Your task to perform on an android device: Go to Wikipedia Image 0: 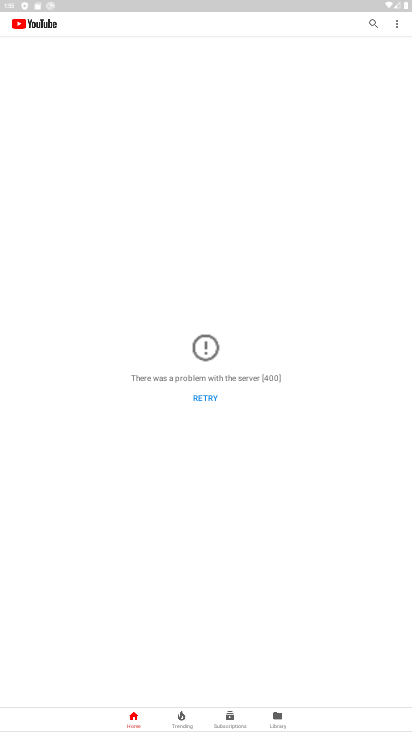
Step 0: press home button
Your task to perform on an android device: Go to Wikipedia Image 1: 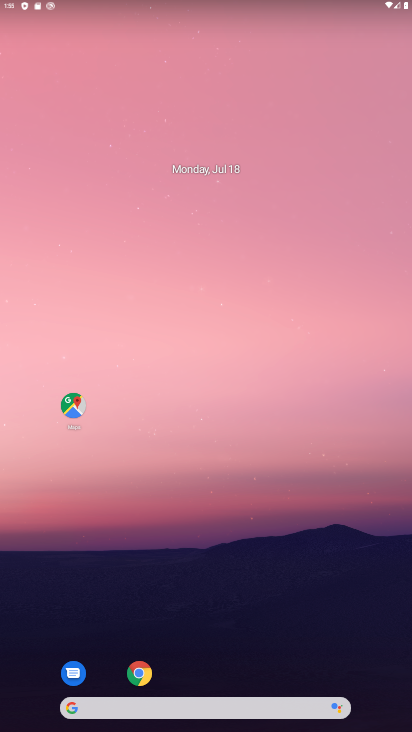
Step 1: click (132, 673)
Your task to perform on an android device: Go to Wikipedia Image 2: 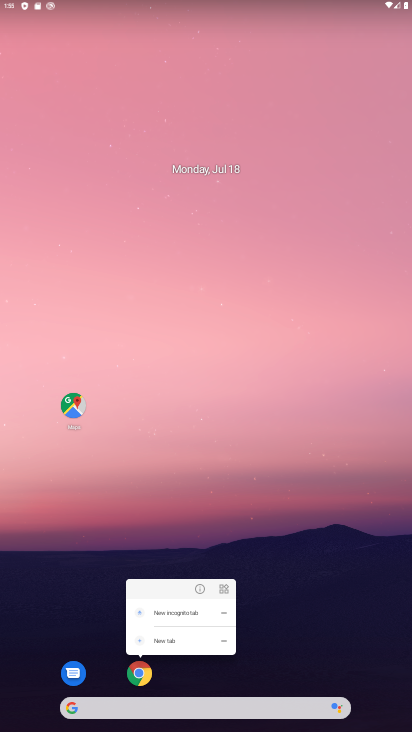
Step 2: click (140, 683)
Your task to perform on an android device: Go to Wikipedia Image 3: 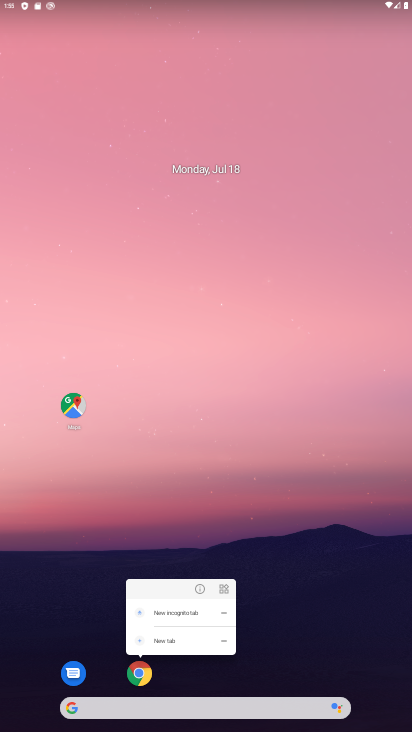
Step 3: click (147, 683)
Your task to perform on an android device: Go to Wikipedia Image 4: 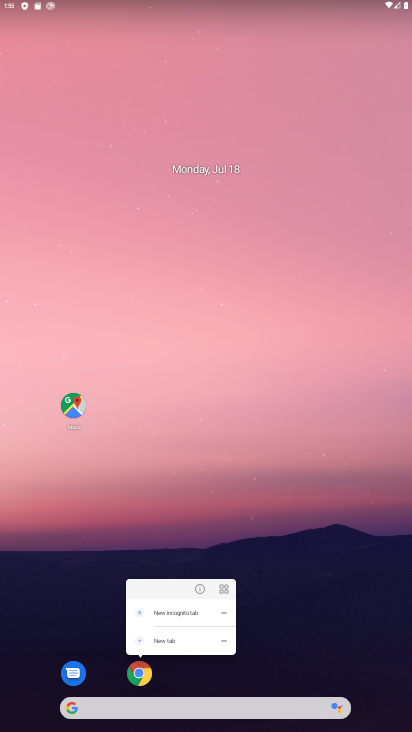
Step 4: click (144, 677)
Your task to perform on an android device: Go to Wikipedia Image 5: 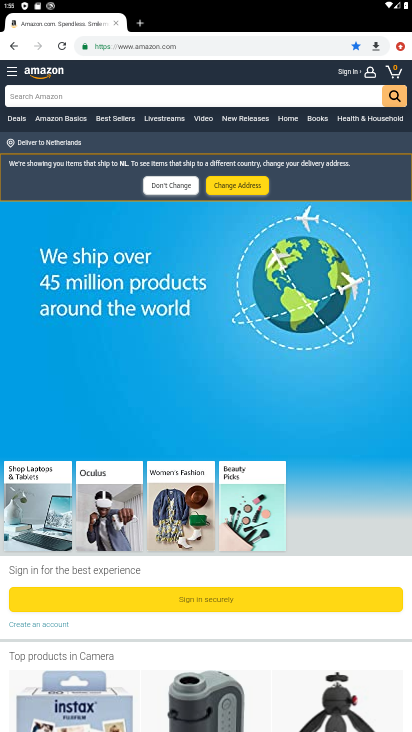
Step 5: drag from (397, 40) to (372, 75)
Your task to perform on an android device: Go to Wikipedia Image 6: 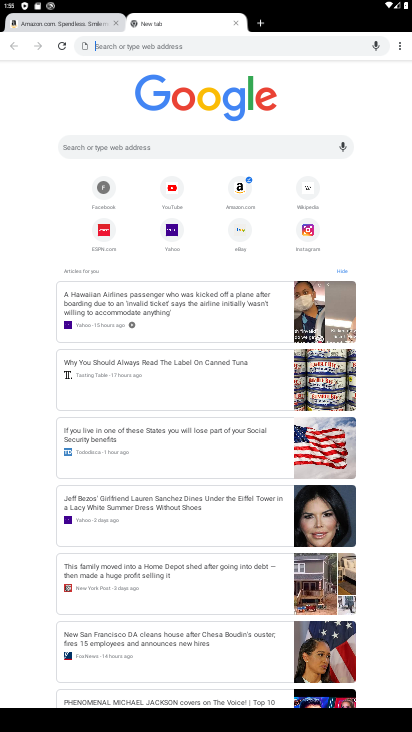
Step 6: click (302, 183)
Your task to perform on an android device: Go to Wikipedia Image 7: 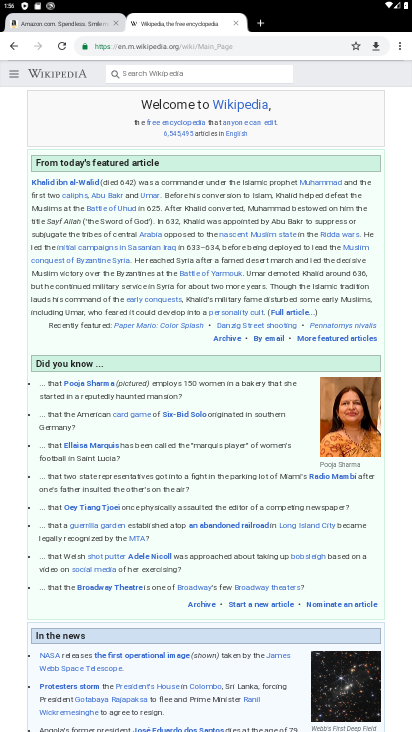
Step 7: task complete